Your task to perform on an android device: delete a single message in the gmail app Image 0: 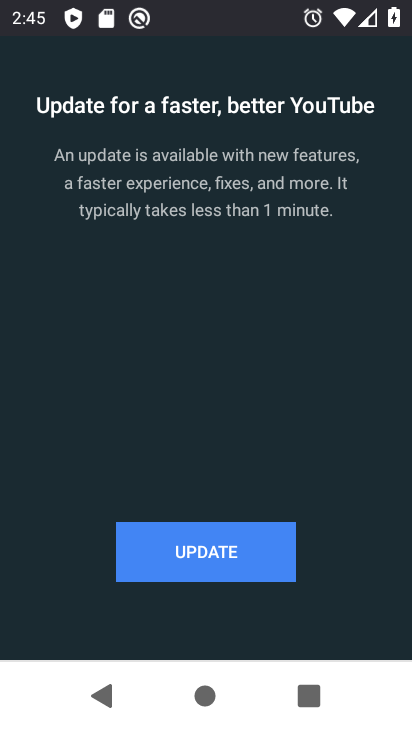
Step 0: press home button
Your task to perform on an android device: delete a single message in the gmail app Image 1: 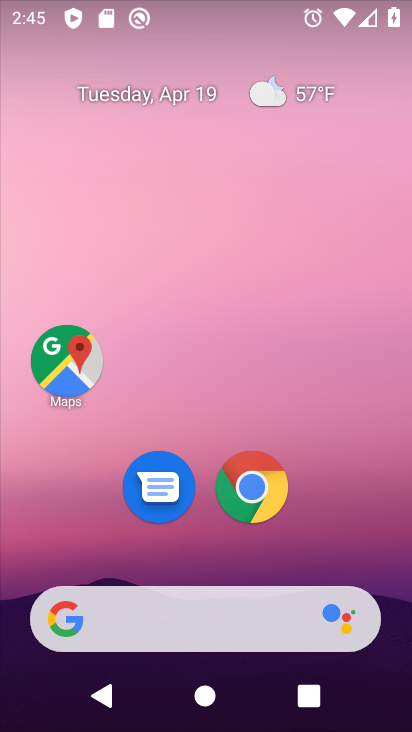
Step 1: drag from (380, 535) to (369, 110)
Your task to perform on an android device: delete a single message in the gmail app Image 2: 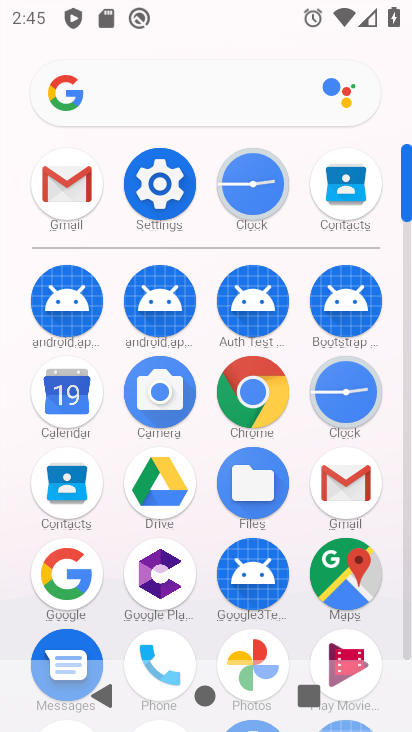
Step 2: click (349, 474)
Your task to perform on an android device: delete a single message in the gmail app Image 3: 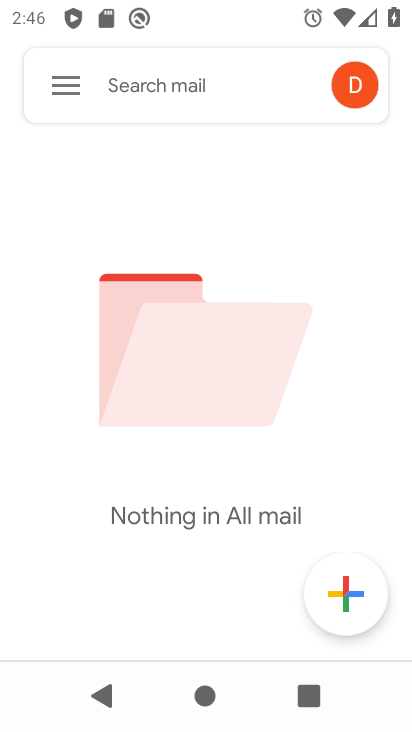
Step 3: task complete